Your task to perform on an android device: open chrome and create a bookmark for the current page Image 0: 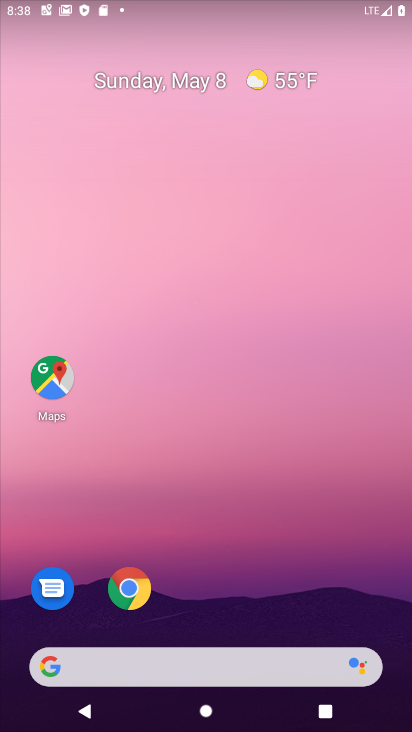
Step 0: drag from (331, 597) to (240, 59)
Your task to perform on an android device: open chrome and create a bookmark for the current page Image 1: 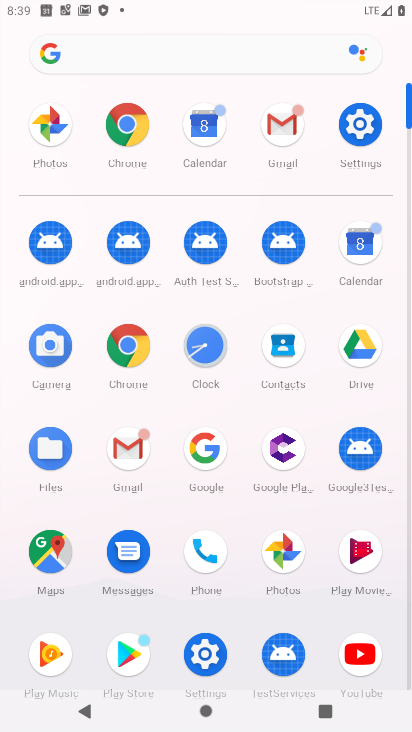
Step 1: click (129, 146)
Your task to perform on an android device: open chrome and create a bookmark for the current page Image 2: 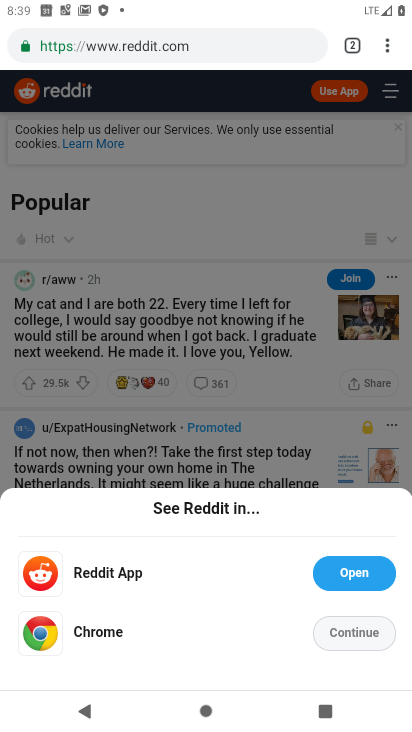
Step 2: press back button
Your task to perform on an android device: open chrome and create a bookmark for the current page Image 3: 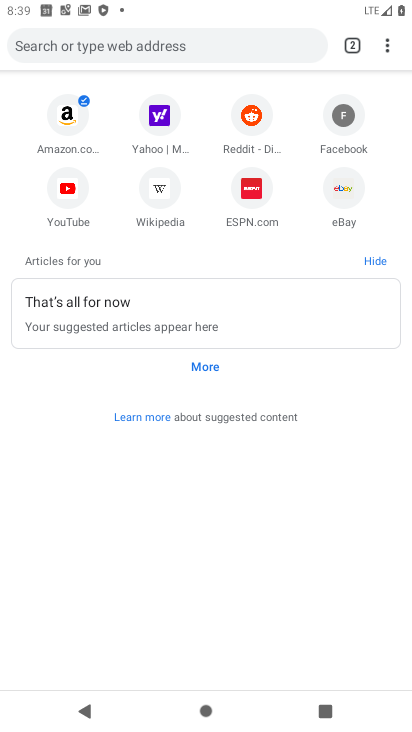
Step 3: click (384, 50)
Your task to perform on an android device: open chrome and create a bookmark for the current page Image 4: 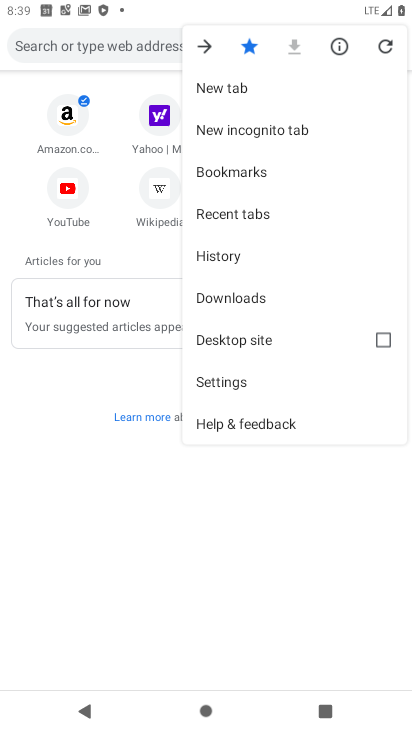
Step 4: task complete